Your task to perform on an android device: open a bookmark in the chrome app Image 0: 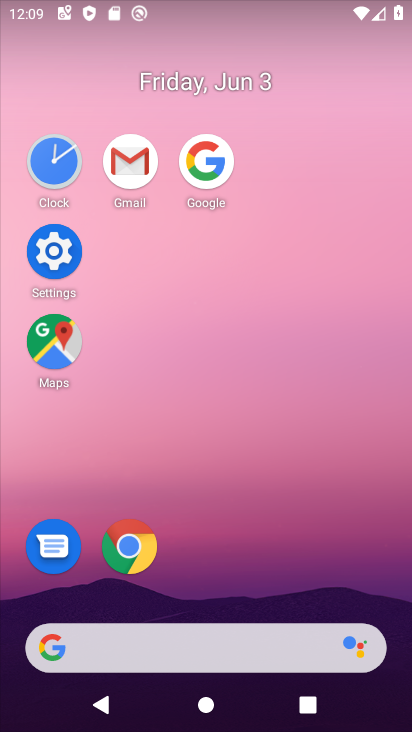
Step 0: click (111, 553)
Your task to perform on an android device: open a bookmark in the chrome app Image 1: 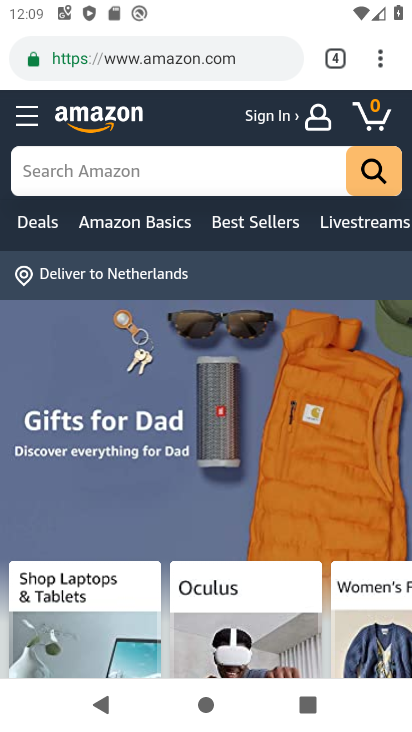
Step 1: click (382, 57)
Your task to perform on an android device: open a bookmark in the chrome app Image 2: 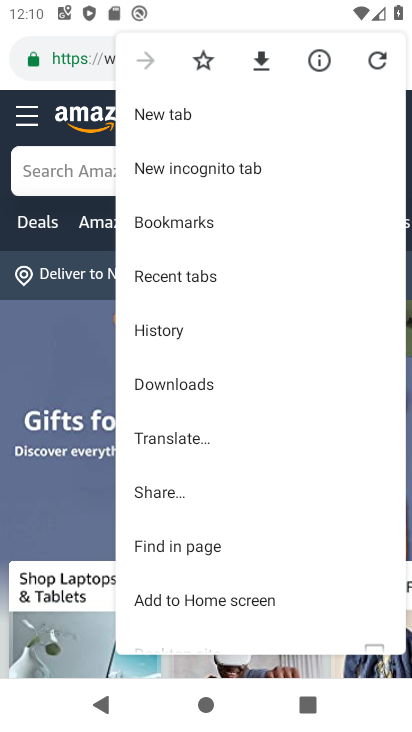
Step 2: click (242, 227)
Your task to perform on an android device: open a bookmark in the chrome app Image 3: 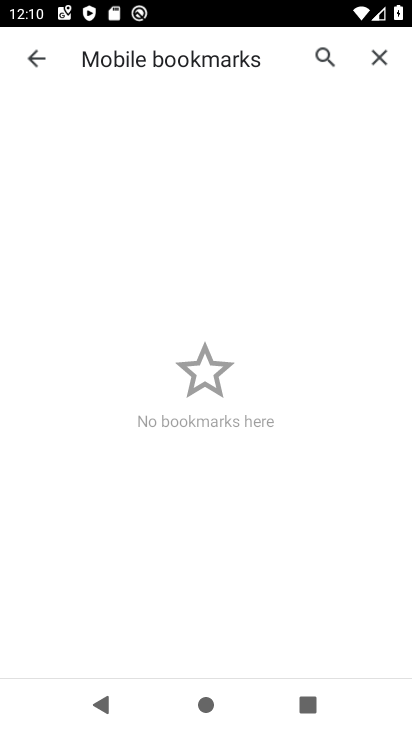
Step 3: task complete